Your task to perform on an android device: Open privacy settings Image 0: 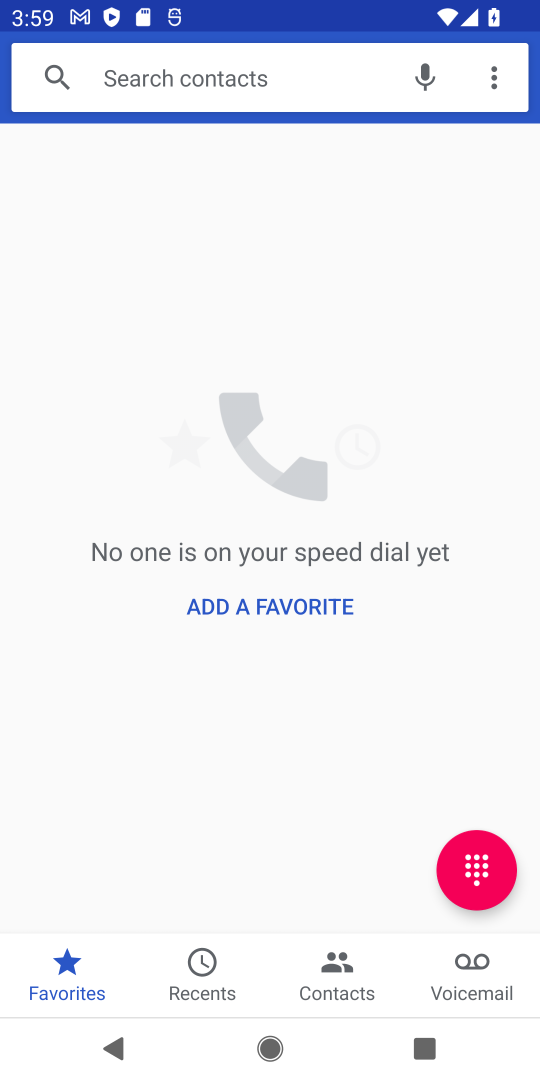
Step 0: press home button
Your task to perform on an android device: Open privacy settings Image 1: 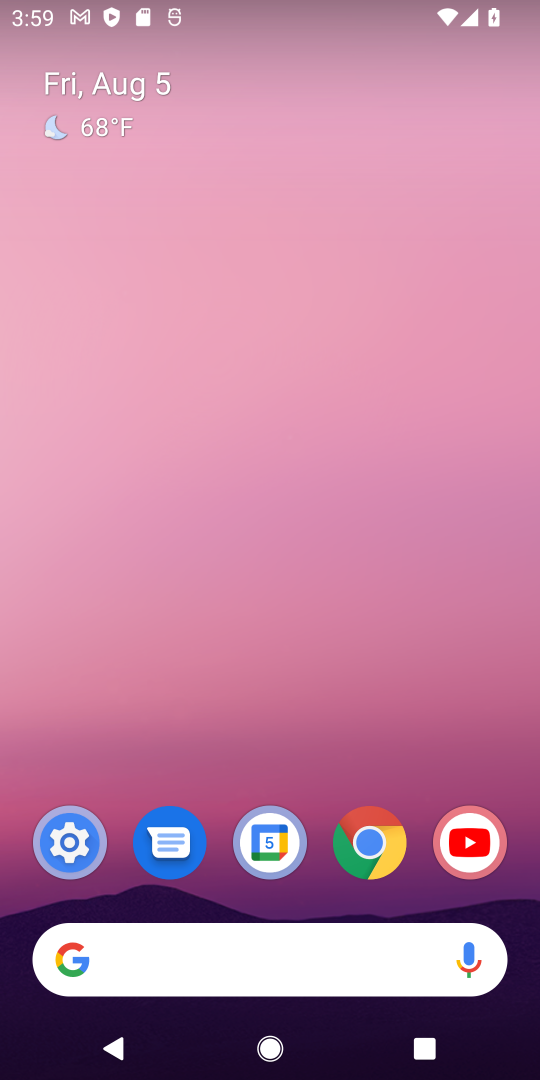
Step 1: click (373, 672)
Your task to perform on an android device: Open privacy settings Image 2: 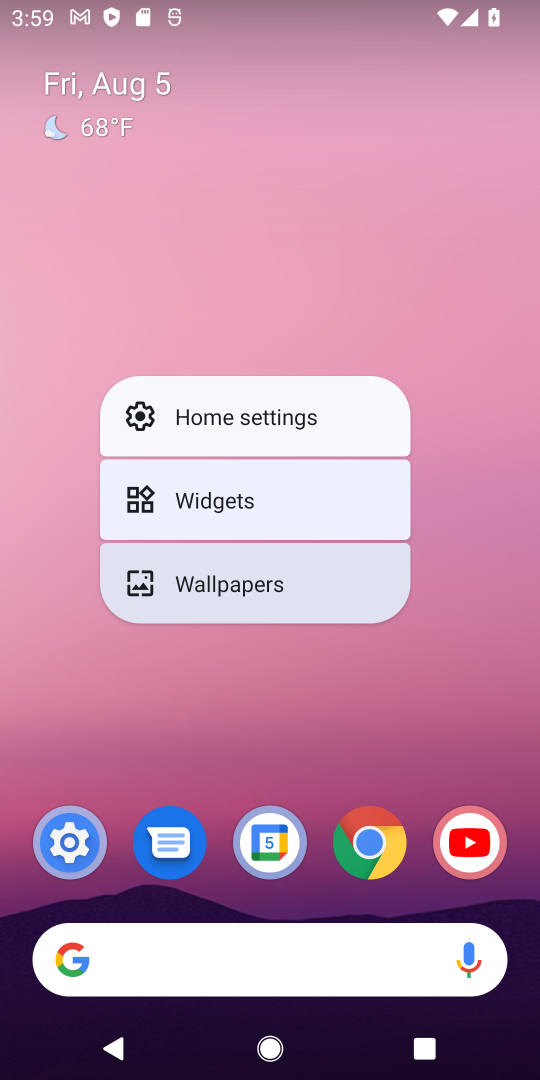
Step 2: click (478, 779)
Your task to perform on an android device: Open privacy settings Image 3: 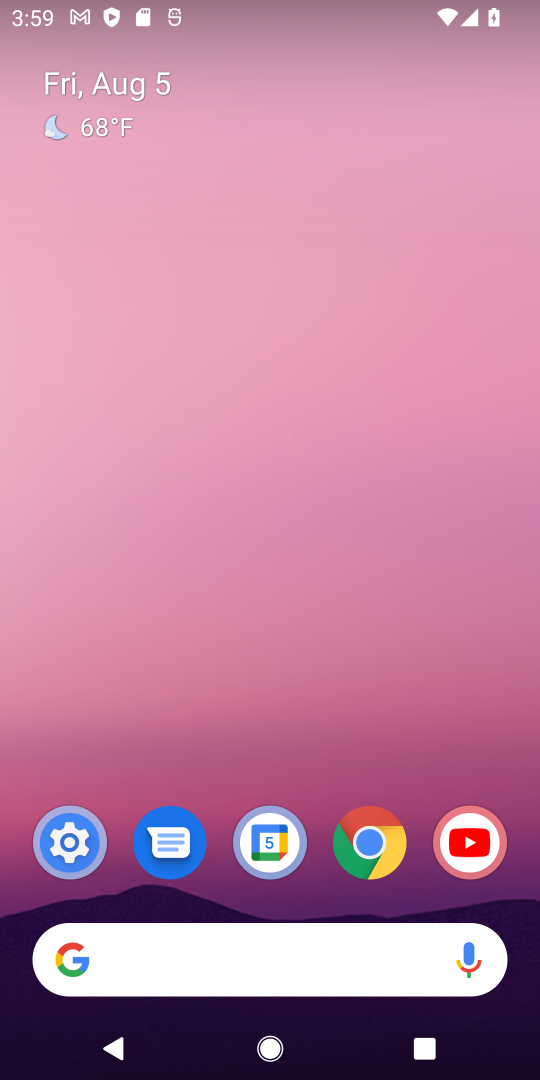
Step 3: drag from (478, 779) to (383, 222)
Your task to perform on an android device: Open privacy settings Image 4: 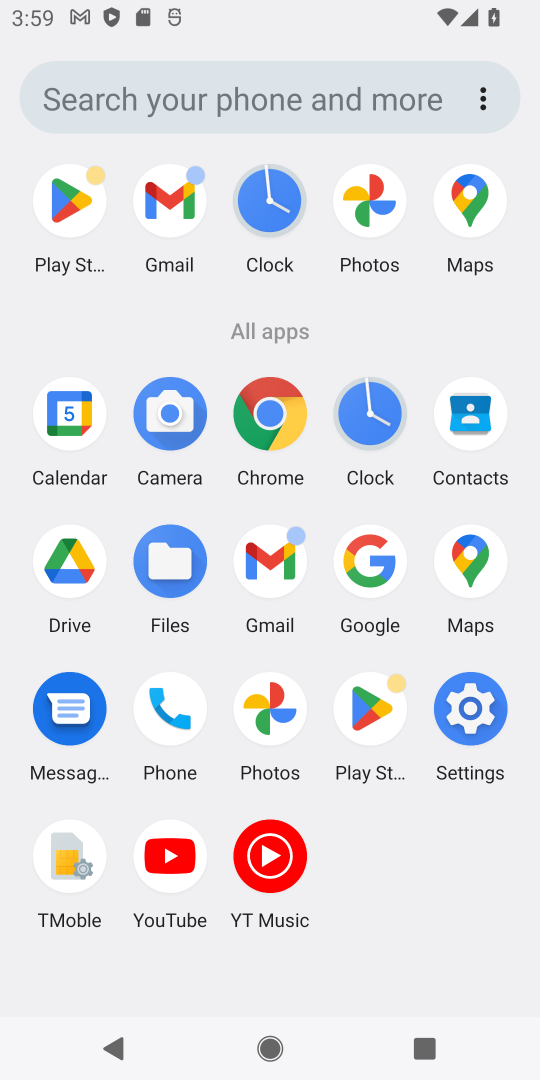
Step 4: click (483, 730)
Your task to perform on an android device: Open privacy settings Image 5: 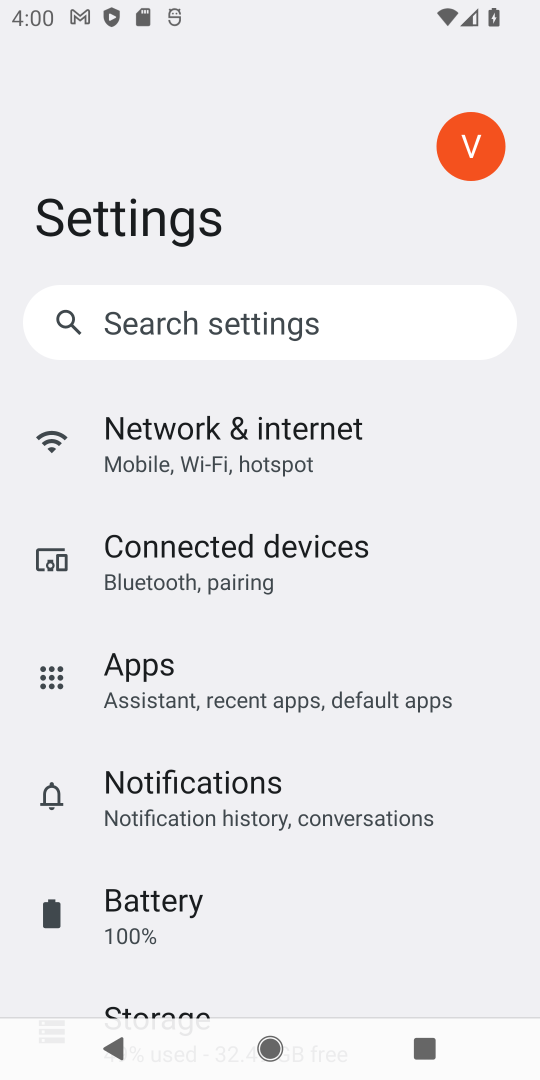
Step 5: drag from (384, 852) to (304, 350)
Your task to perform on an android device: Open privacy settings Image 6: 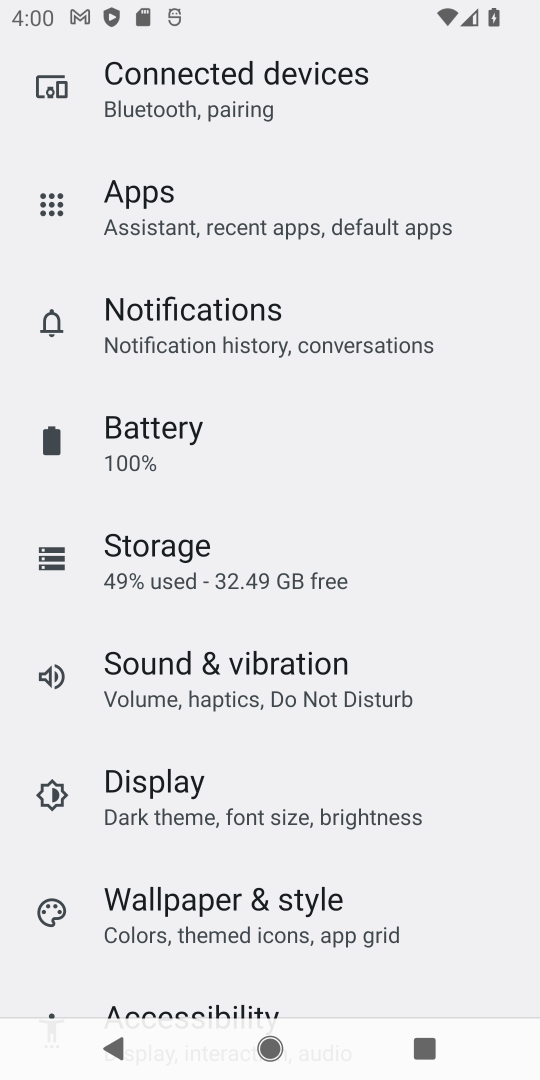
Step 6: drag from (403, 771) to (383, 467)
Your task to perform on an android device: Open privacy settings Image 7: 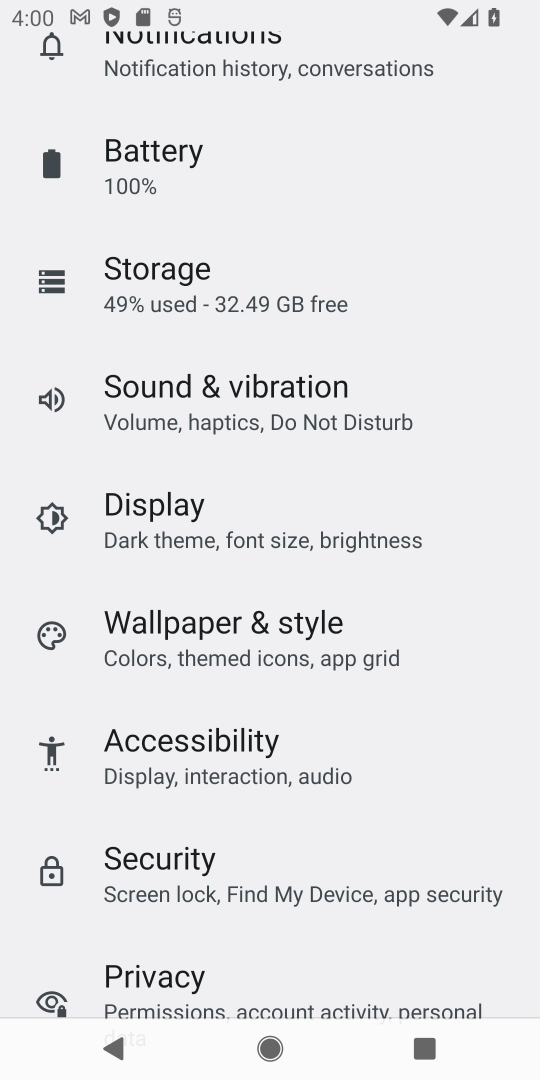
Step 7: click (197, 985)
Your task to perform on an android device: Open privacy settings Image 8: 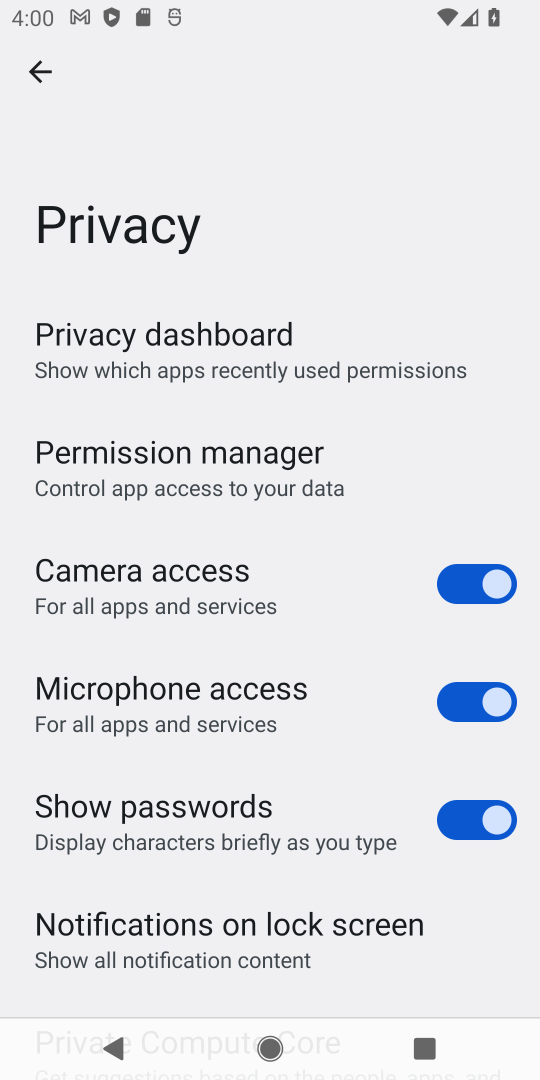
Step 8: click (197, 985)
Your task to perform on an android device: Open privacy settings Image 9: 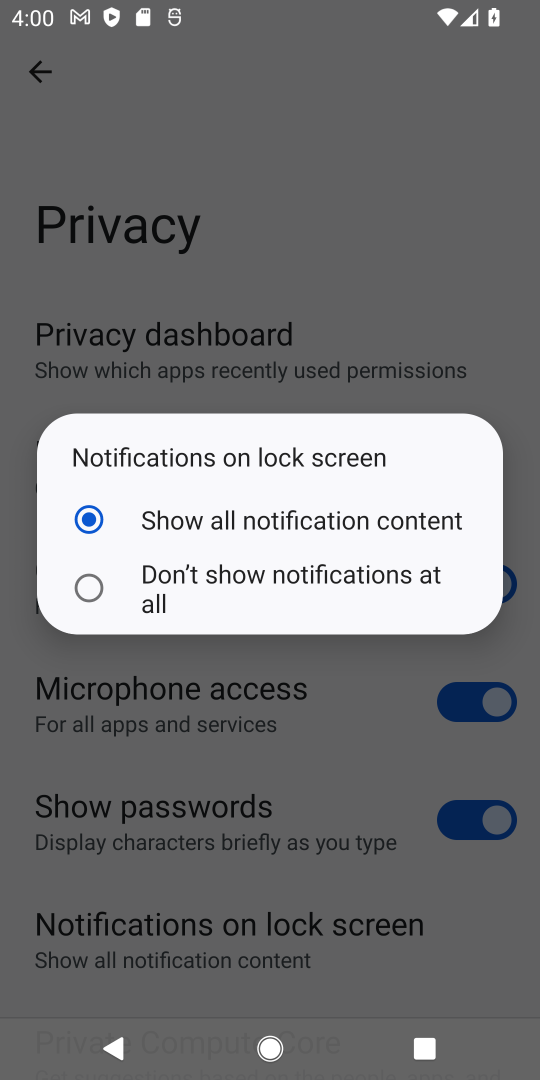
Step 9: task complete